Your task to perform on an android device: toggle notification dots Image 0: 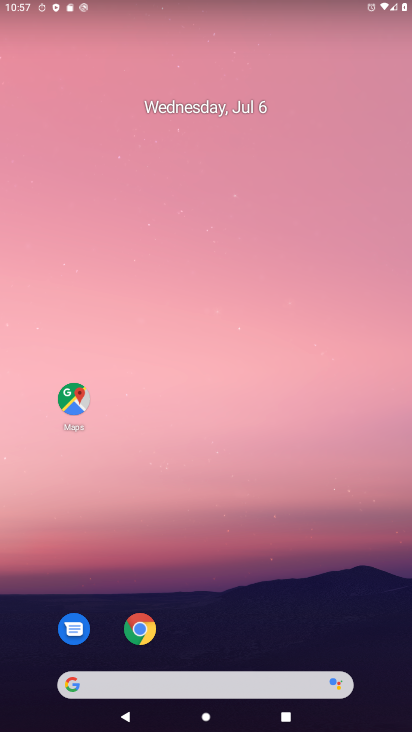
Step 0: drag from (201, 624) to (220, 97)
Your task to perform on an android device: toggle notification dots Image 1: 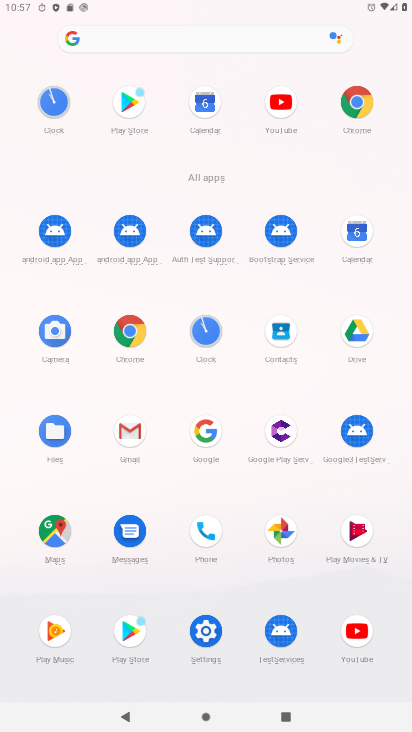
Step 1: click (206, 623)
Your task to perform on an android device: toggle notification dots Image 2: 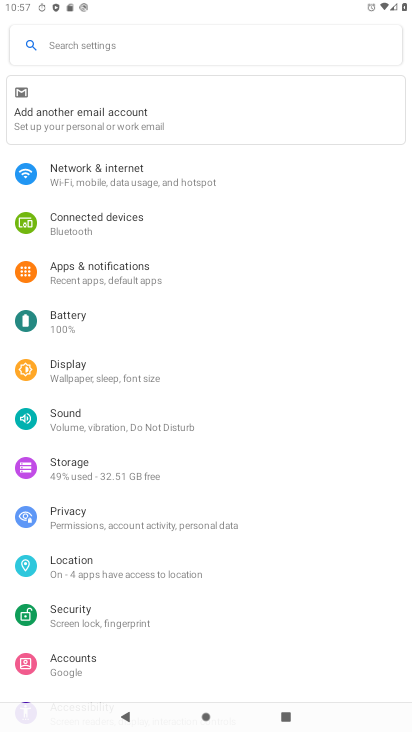
Step 2: click (102, 274)
Your task to perform on an android device: toggle notification dots Image 3: 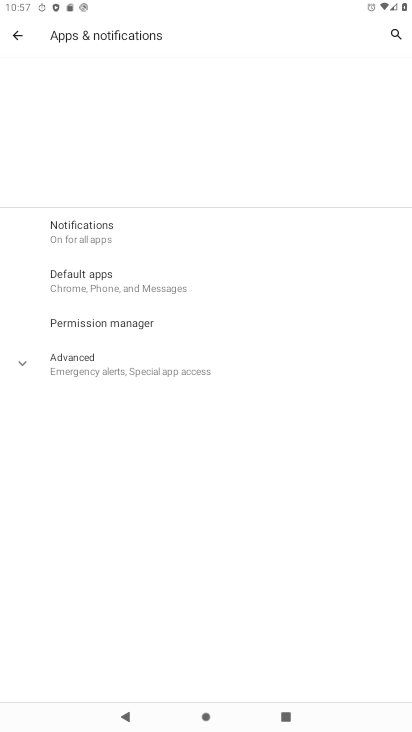
Step 3: click (115, 230)
Your task to perform on an android device: toggle notification dots Image 4: 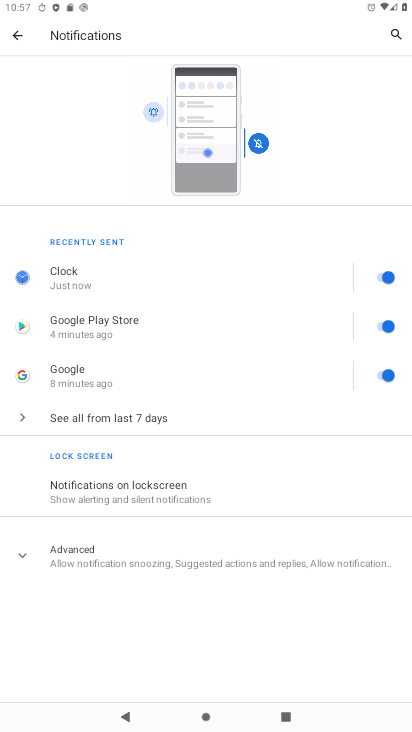
Step 4: click (89, 552)
Your task to perform on an android device: toggle notification dots Image 5: 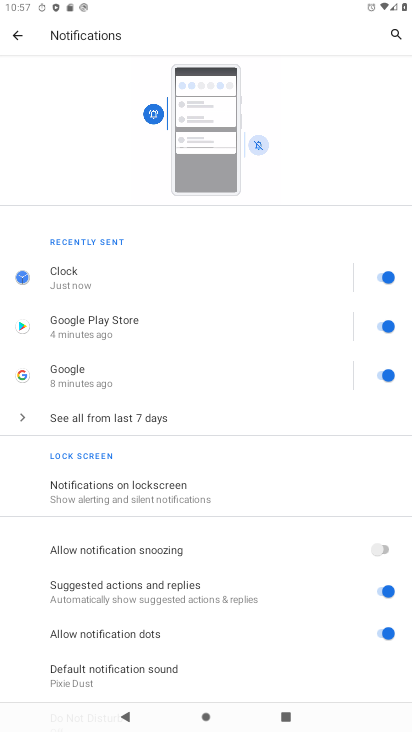
Step 5: click (386, 636)
Your task to perform on an android device: toggle notification dots Image 6: 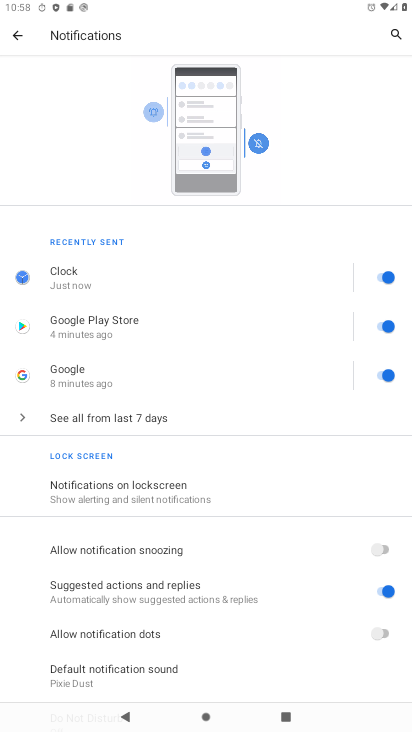
Step 6: task complete